Your task to perform on an android device: turn on data saver in the chrome app Image 0: 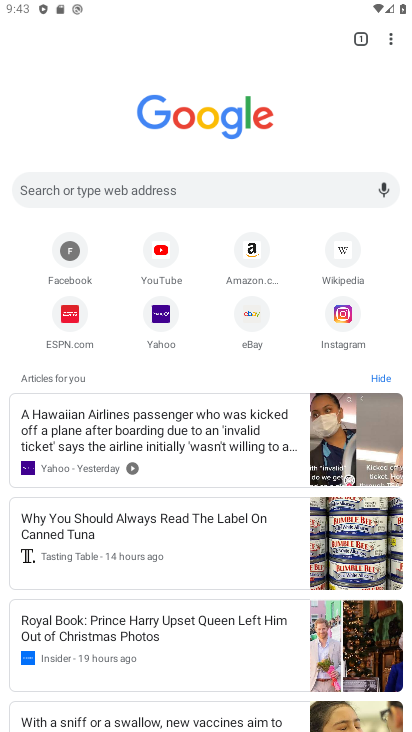
Step 0: drag from (392, 39) to (316, 321)
Your task to perform on an android device: turn on data saver in the chrome app Image 1: 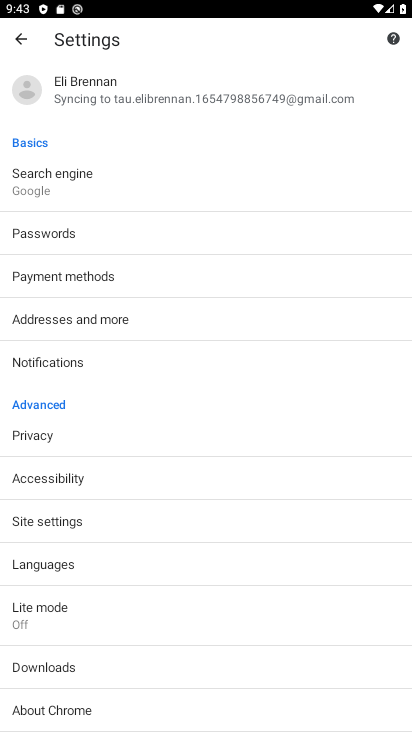
Step 1: click (97, 628)
Your task to perform on an android device: turn on data saver in the chrome app Image 2: 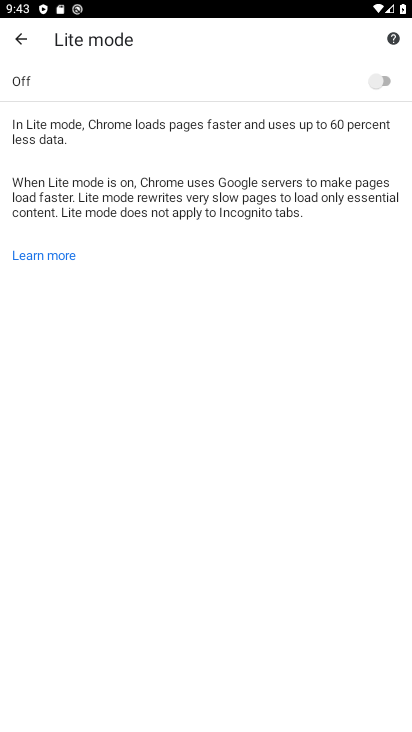
Step 2: click (402, 72)
Your task to perform on an android device: turn on data saver in the chrome app Image 3: 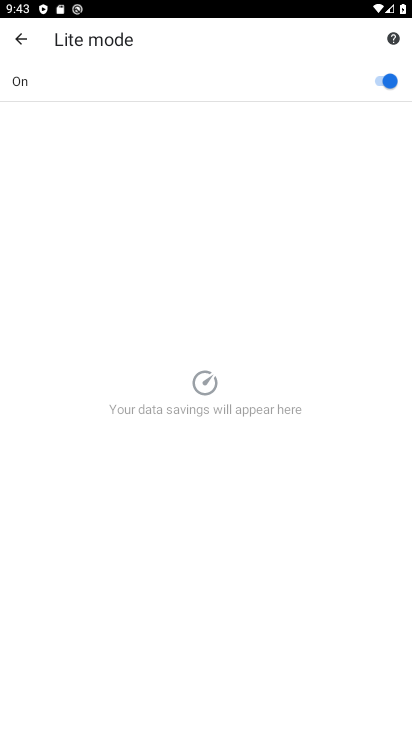
Step 3: task complete